Your task to perform on an android device: turn pop-ups off in chrome Image 0: 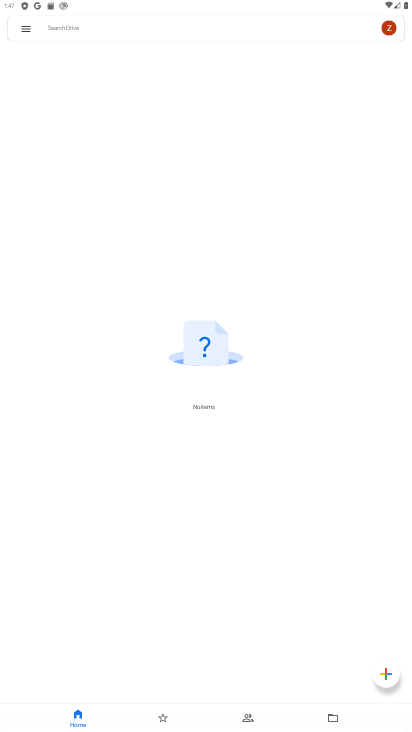
Step 0: press home button
Your task to perform on an android device: turn pop-ups off in chrome Image 1: 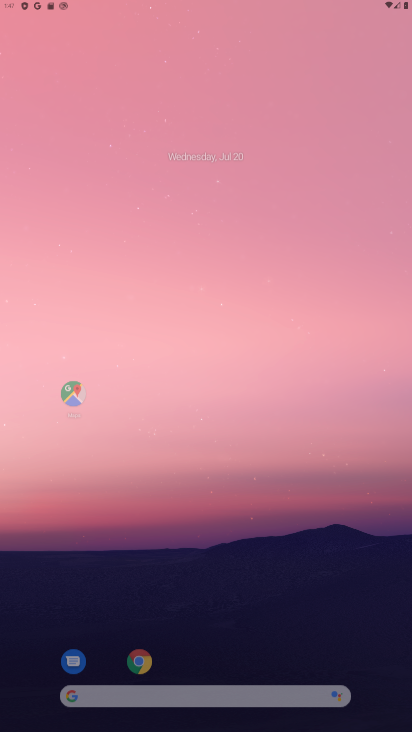
Step 1: drag from (344, 603) to (380, 151)
Your task to perform on an android device: turn pop-ups off in chrome Image 2: 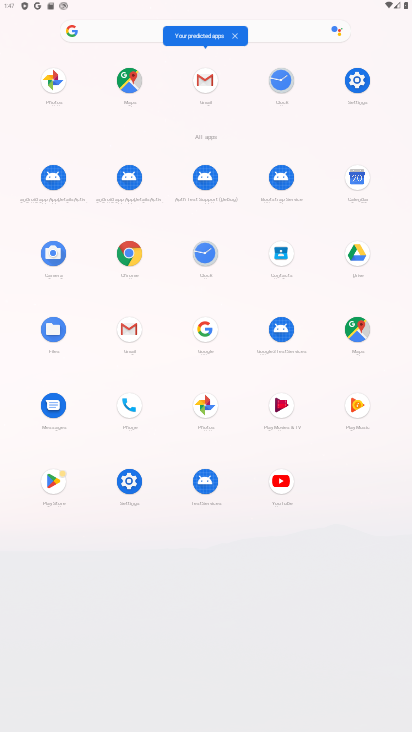
Step 2: click (131, 255)
Your task to perform on an android device: turn pop-ups off in chrome Image 3: 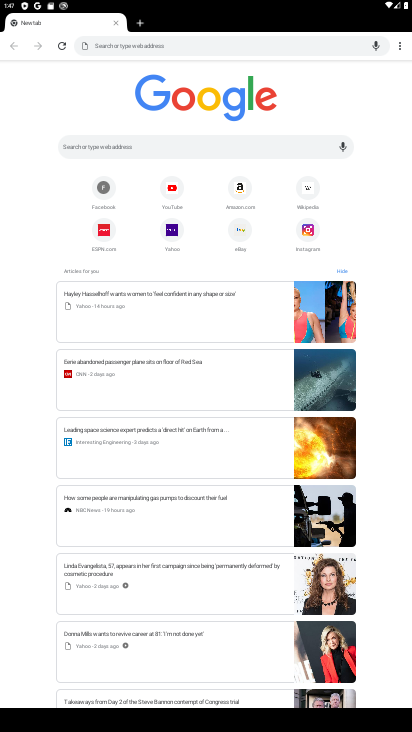
Step 3: drag from (398, 43) to (313, 207)
Your task to perform on an android device: turn pop-ups off in chrome Image 4: 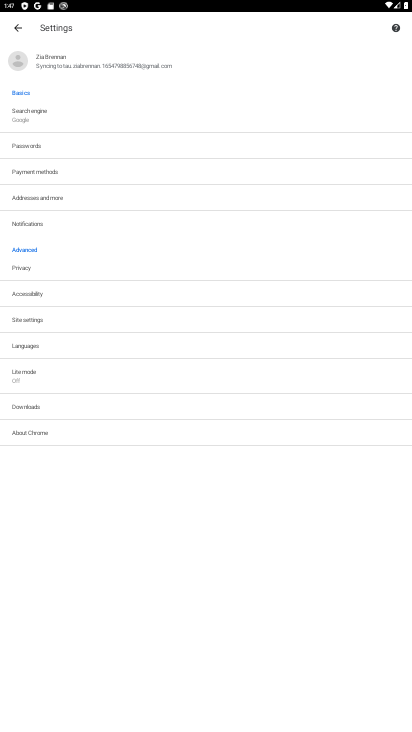
Step 4: click (50, 317)
Your task to perform on an android device: turn pop-ups off in chrome Image 5: 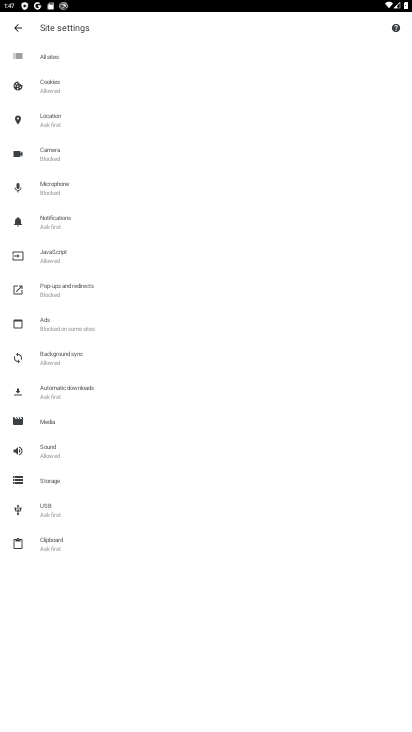
Step 5: click (59, 297)
Your task to perform on an android device: turn pop-ups off in chrome Image 6: 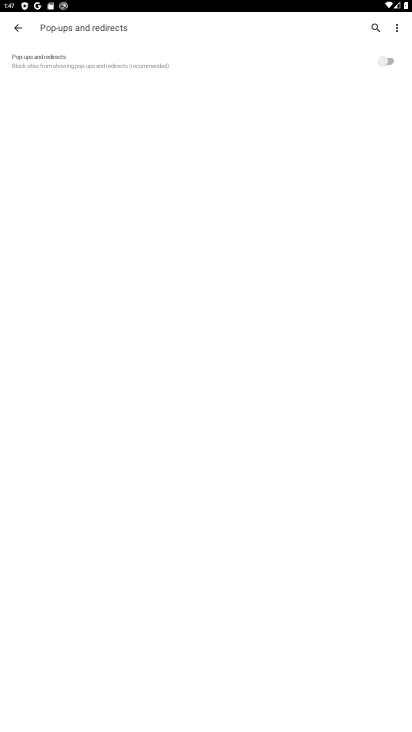
Step 6: task complete